Your task to perform on an android device: uninstall "DoorDash - Food Delivery" Image 0: 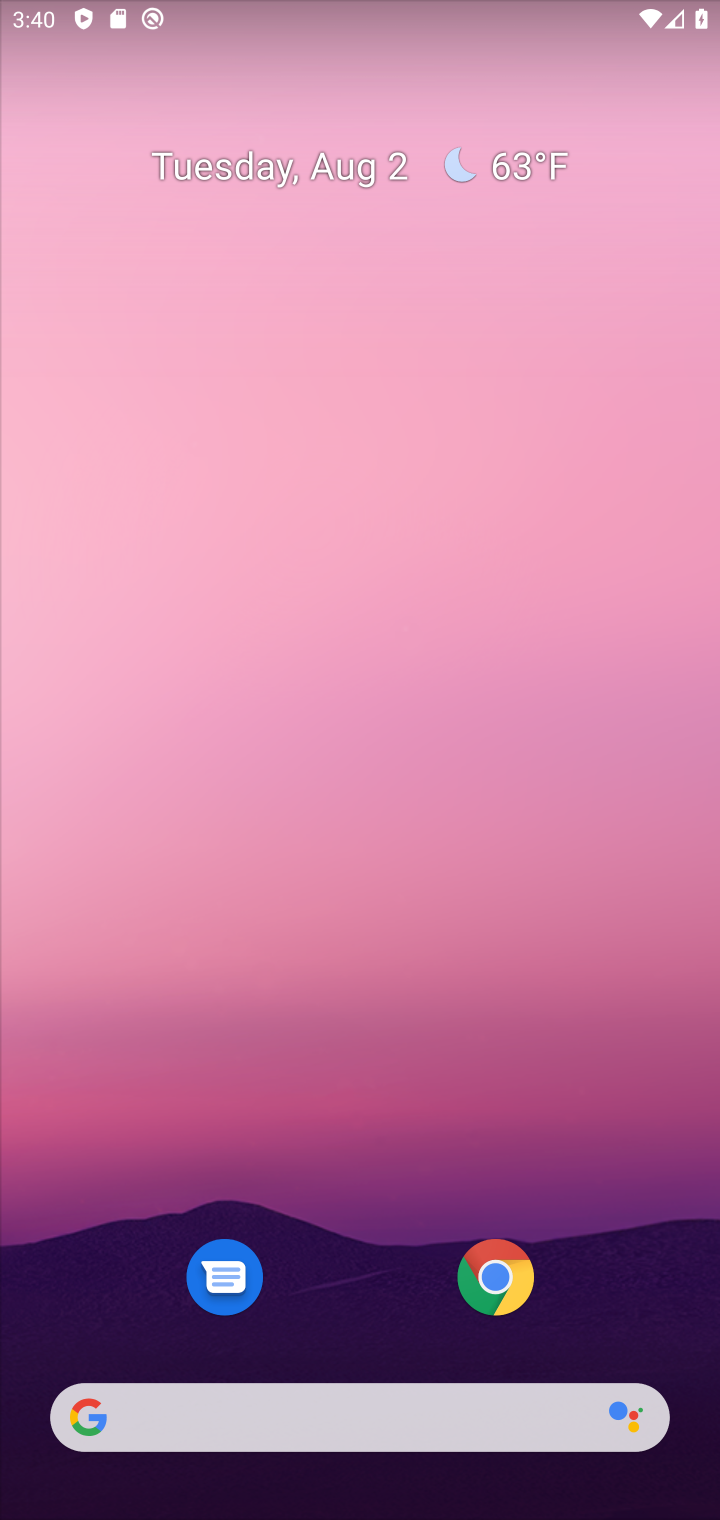
Step 0: drag from (391, 1044) to (470, 171)
Your task to perform on an android device: uninstall "DoorDash - Food Delivery" Image 1: 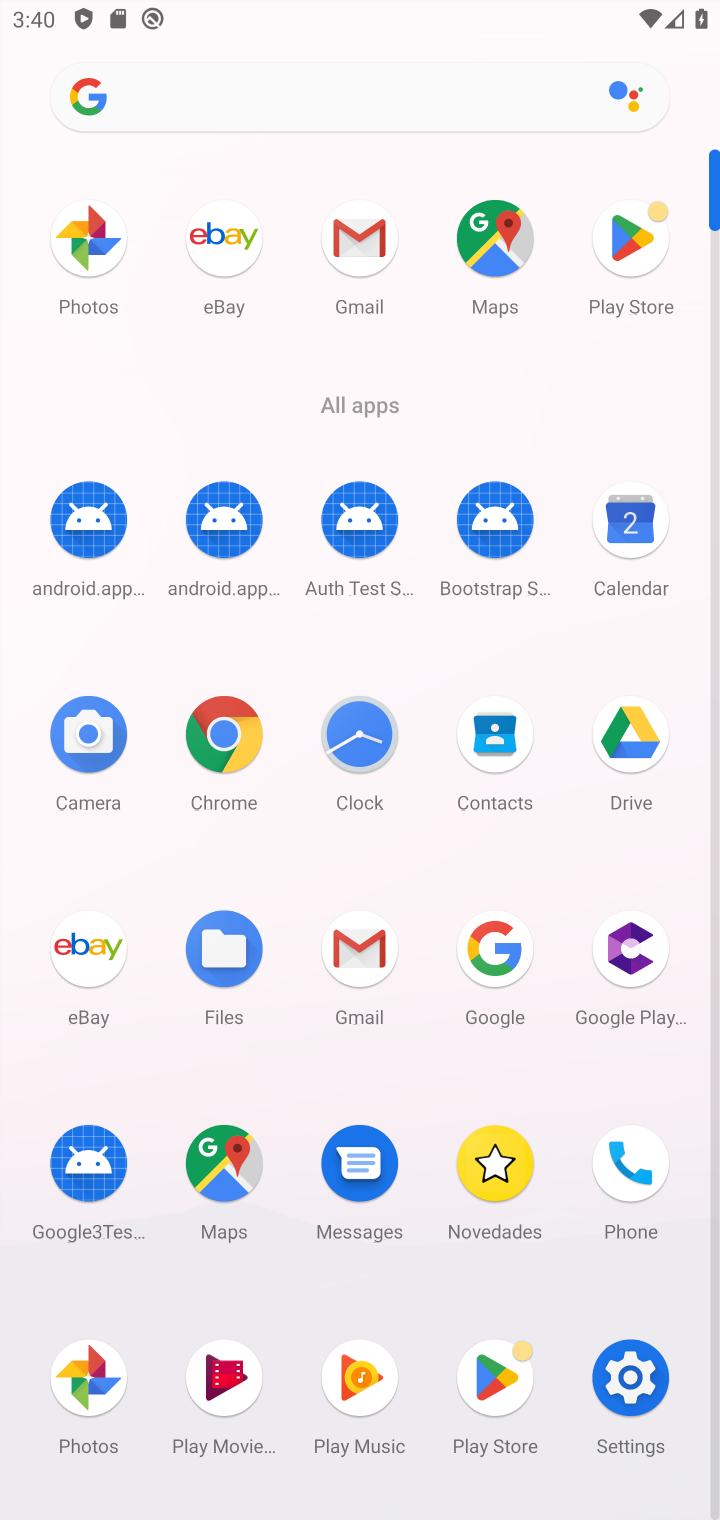
Step 1: click (494, 1359)
Your task to perform on an android device: uninstall "DoorDash - Food Delivery" Image 2: 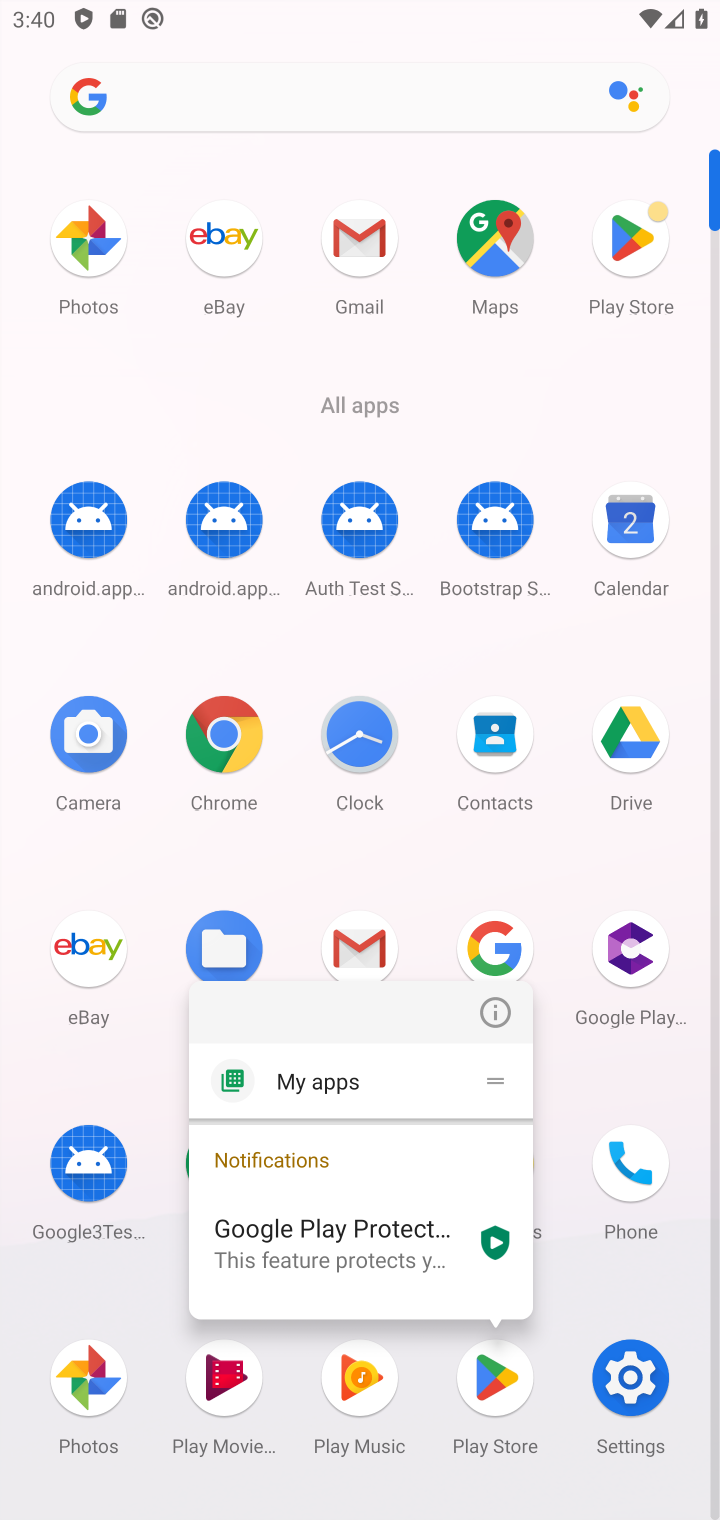
Step 2: click (484, 1377)
Your task to perform on an android device: uninstall "DoorDash - Food Delivery" Image 3: 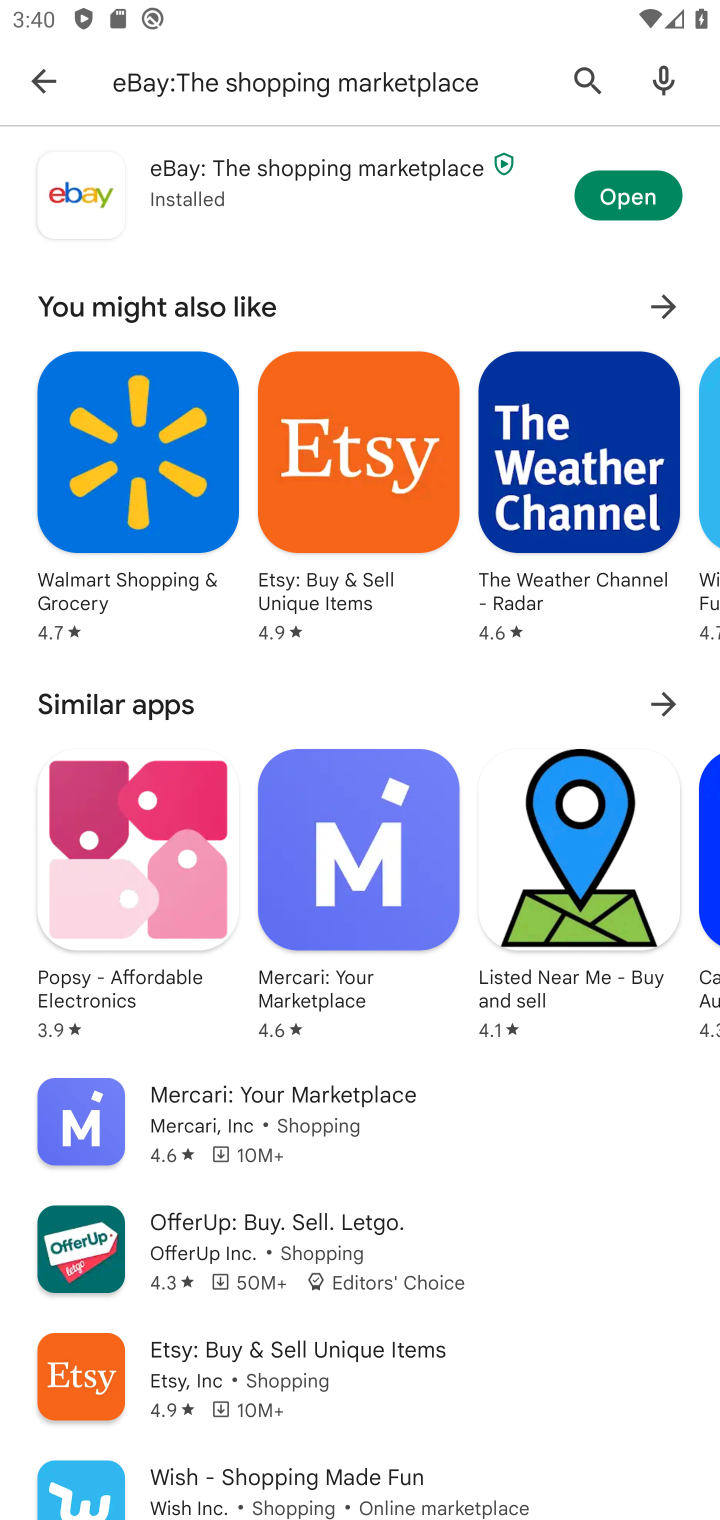
Step 3: click (457, 91)
Your task to perform on an android device: uninstall "DoorDash - Food Delivery" Image 4: 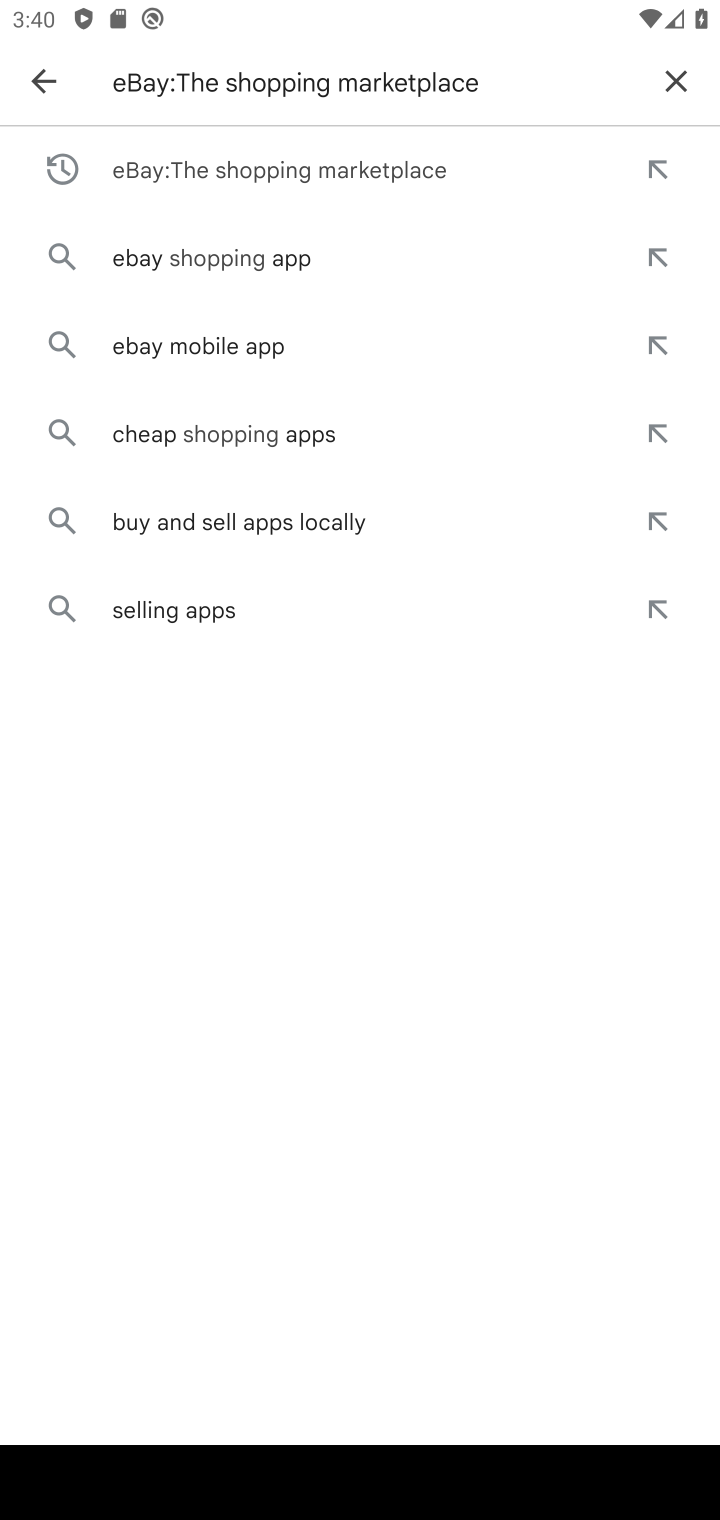
Step 4: click (676, 70)
Your task to perform on an android device: uninstall "DoorDash - Food Delivery" Image 5: 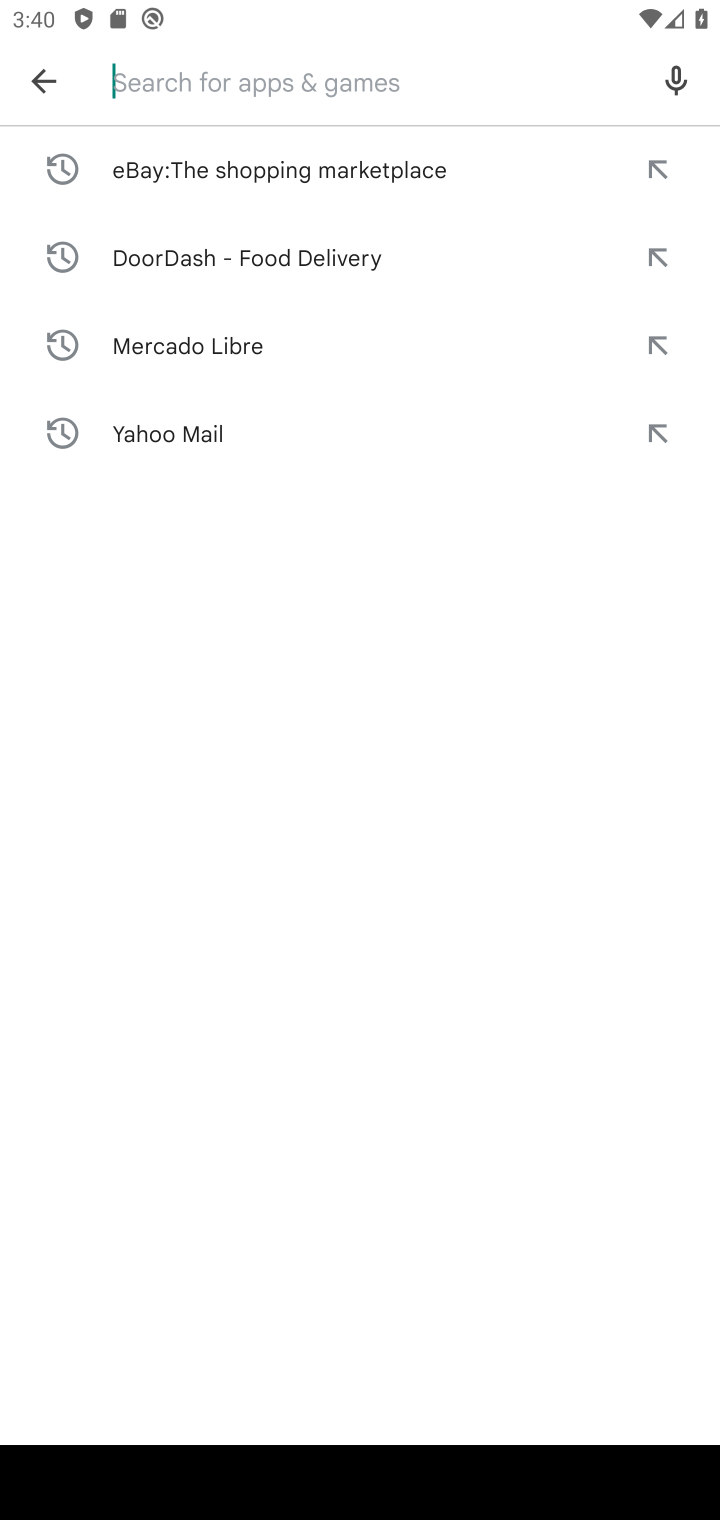
Step 5: type "DoorDash - Food Delivery"
Your task to perform on an android device: uninstall "DoorDash - Food Delivery" Image 6: 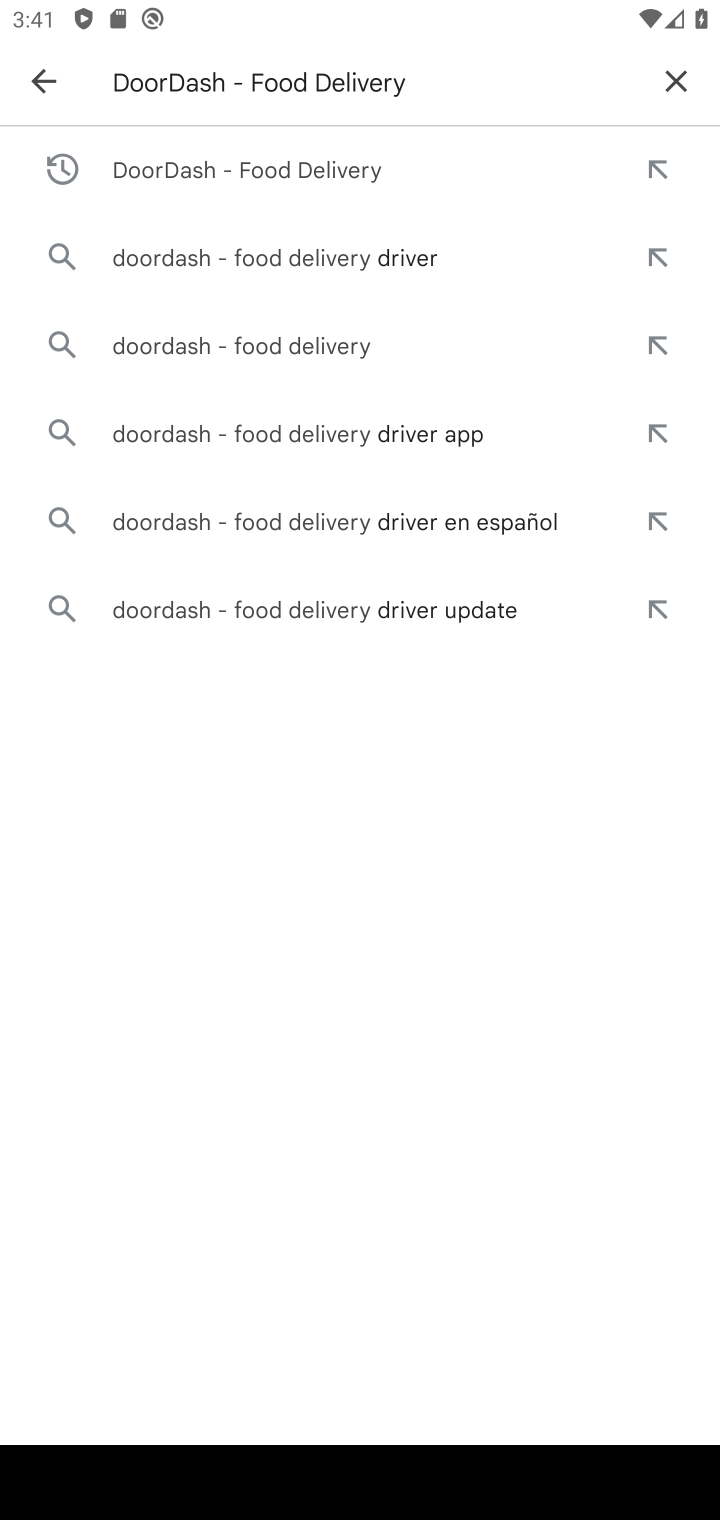
Step 6: press enter
Your task to perform on an android device: uninstall "DoorDash - Food Delivery" Image 7: 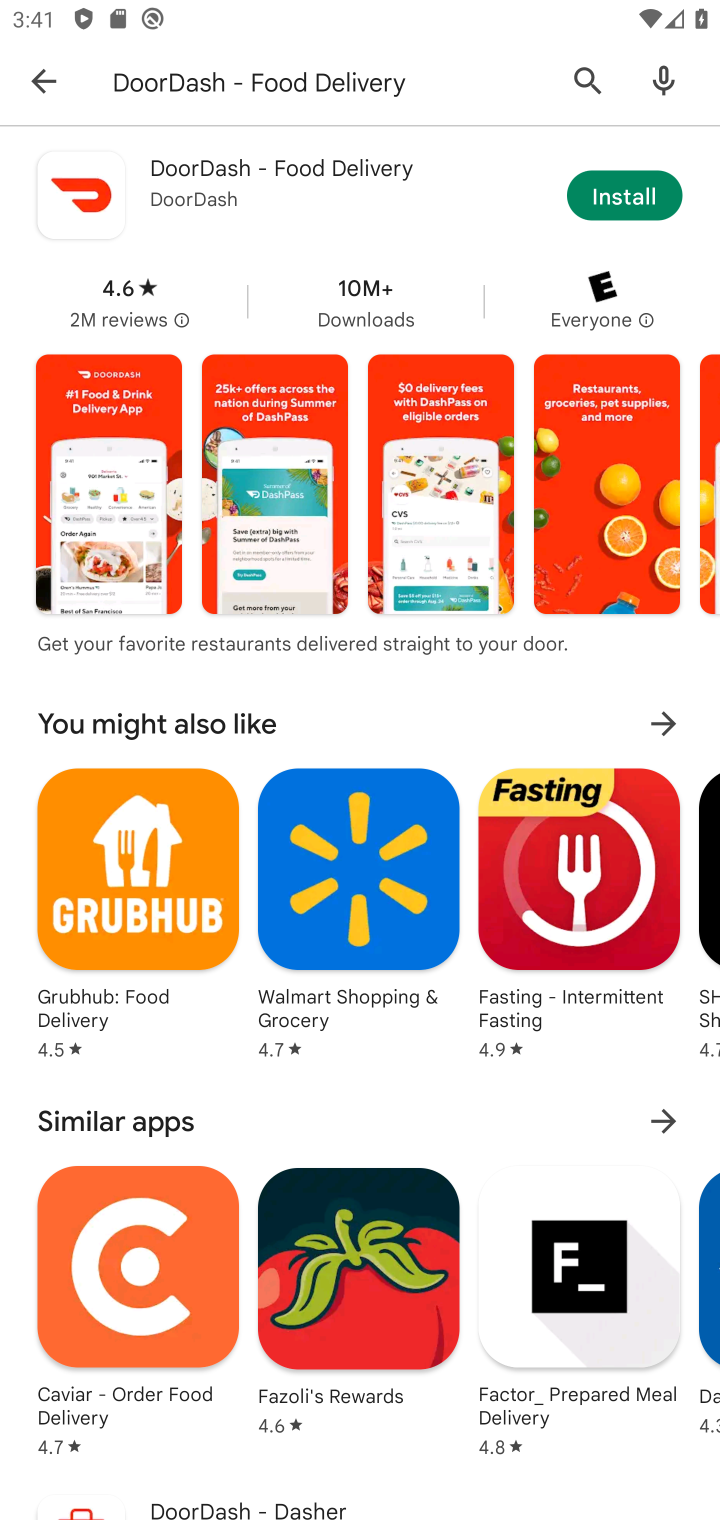
Step 7: press enter
Your task to perform on an android device: uninstall "DoorDash - Food Delivery" Image 8: 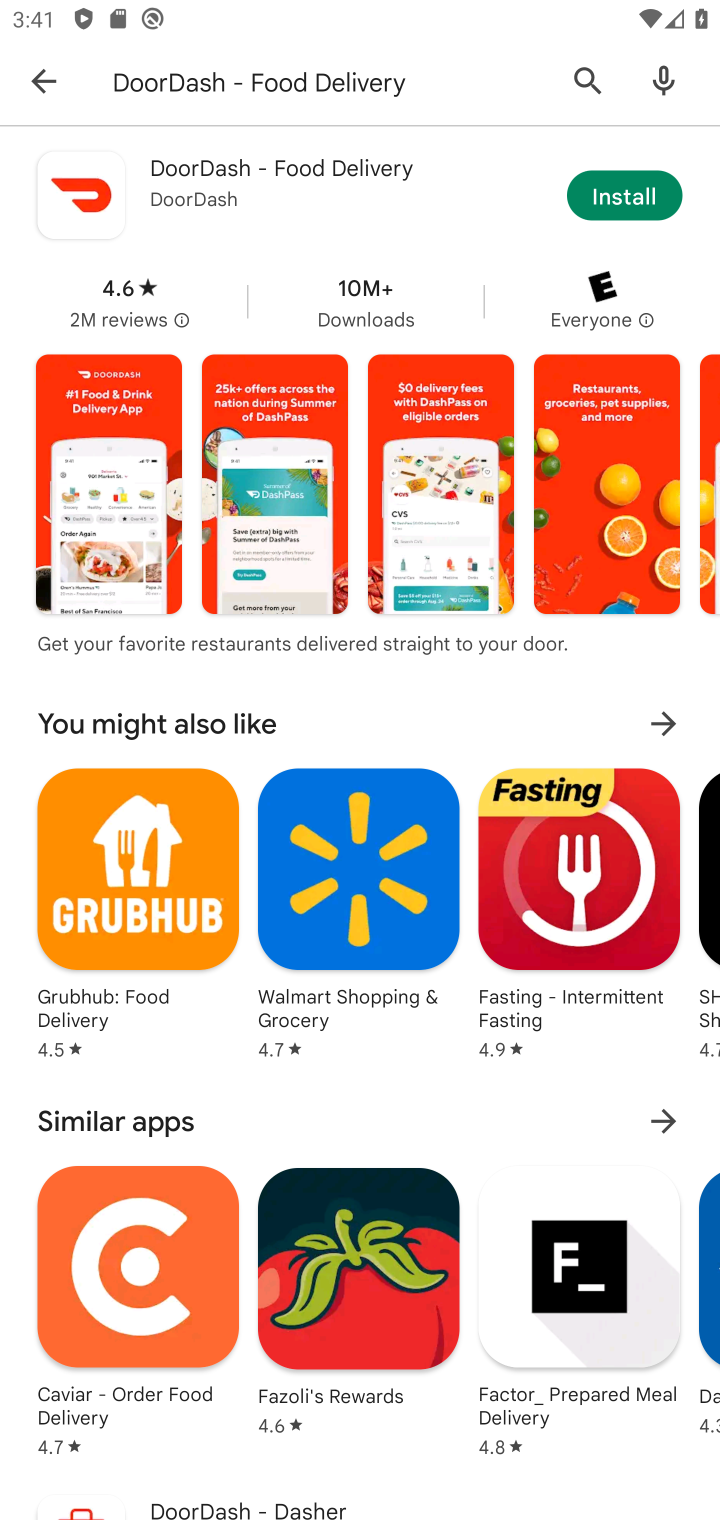
Step 8: task complete